Your task to perform on an android device: change the clock display to analog Image 0: 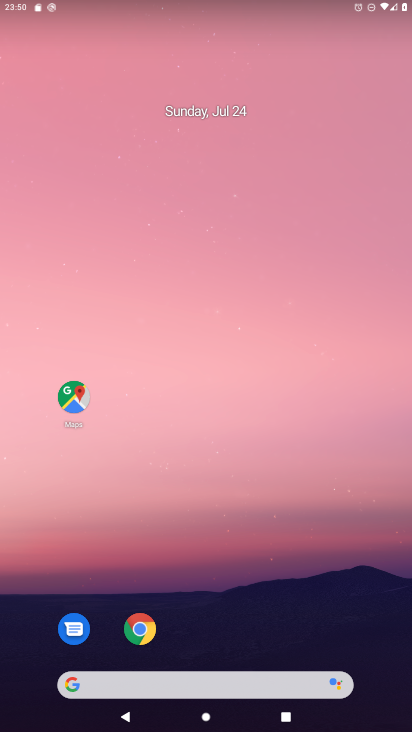
Step 0: drag from (196, 644) to (282, 308)
Your task to perform on an android device: change the clock display to analog Image 1: 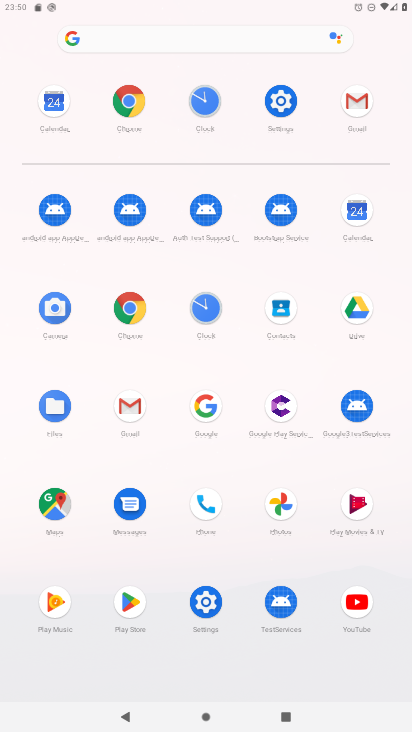
Step 1: drag from (177, 631) to (212, 138)
Your task to perform on an android device: change the clock display to analog Image 2: 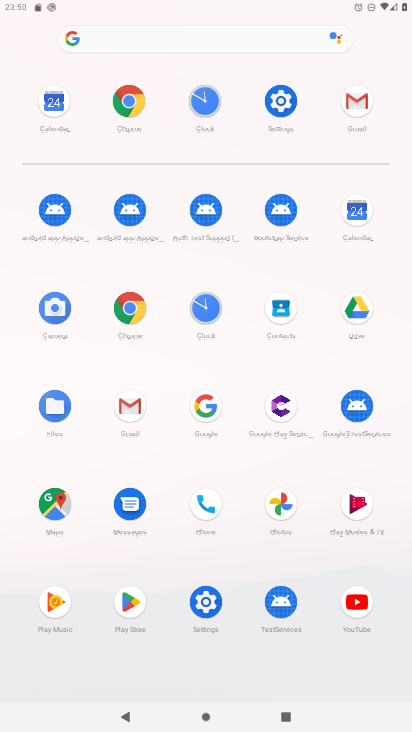
Step 2: click (199, 303)
Your task to perform on an android device: change the clock display to analog Image 3: 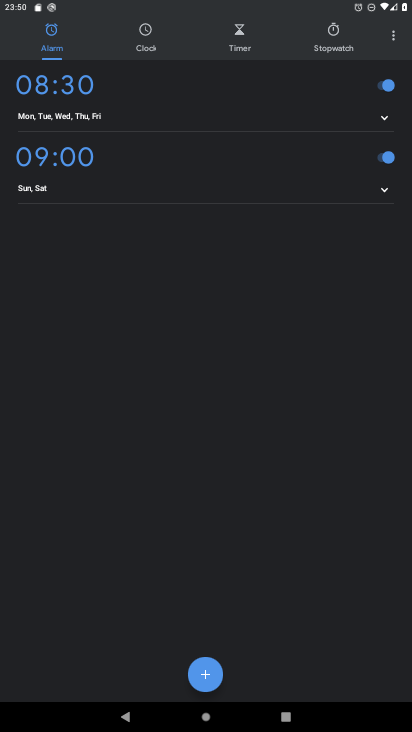
Step 3: drag from (389, 41) to (350, 66)
Your task to perform on an android device: change the clock display to analog Image 4: 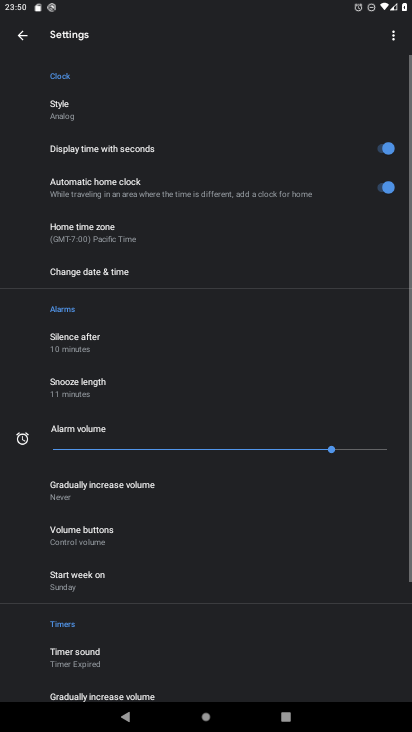
Step 4: click (82, 103)
Your task to perform on an android device: change the clock display to analog Image 5: 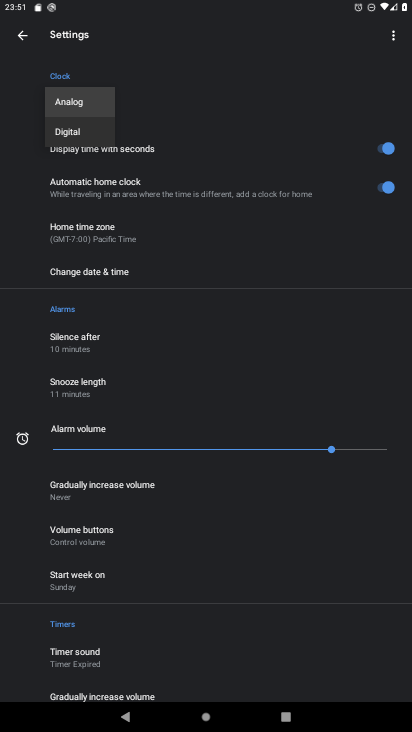
Step 5: click (94, 106)
Your task to perform on an android device: change the clock display to analog Image 6: 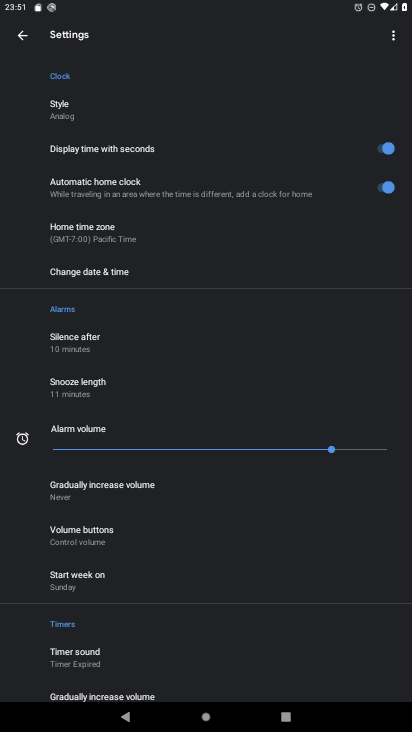
Step 6: task complete